Your task to perform on an android device: choose inbox layout in the gmail app Image 0: 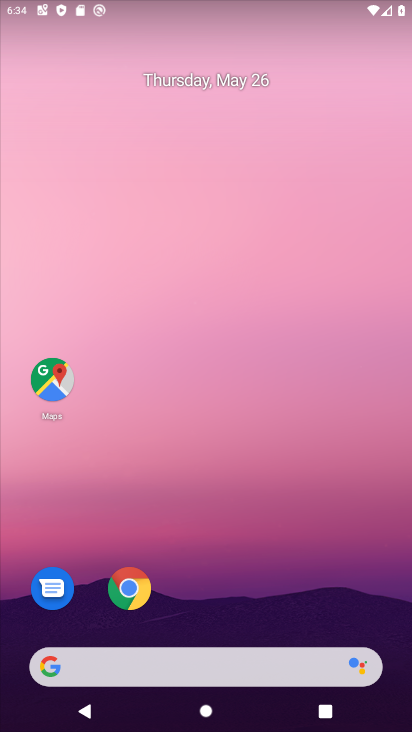
Step 0: drag from (365, 632) to (268, 12)
Your task to perform on an android device: choose inbox layout in the gmail app Image 1: 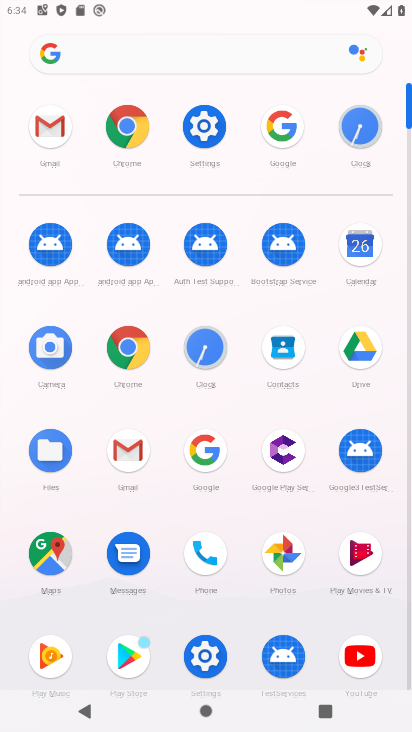
Step 1: click (138, 453)
Your task to perform on an android device: choose inbox layout in the gmail app Image 2: 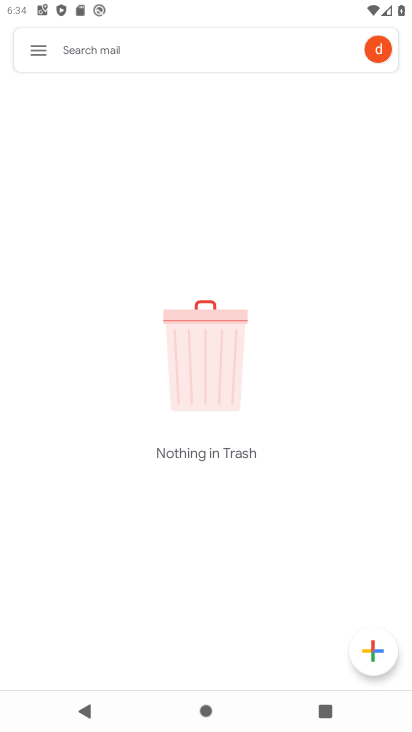
Step 2: click (24, 72)
Your task to perform on an android device: choose inbox layout in the gmail app Image 3: 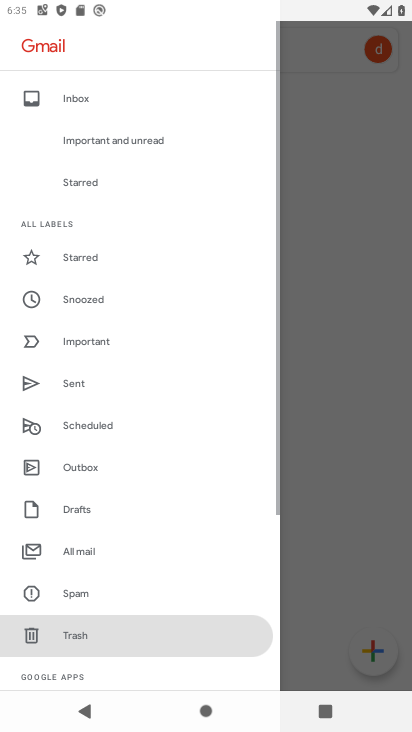
Step 3: drag from (75, 113) to (172, 639)
Your task to perform on an android device: choose inbox layout in the gmail app Image 4: 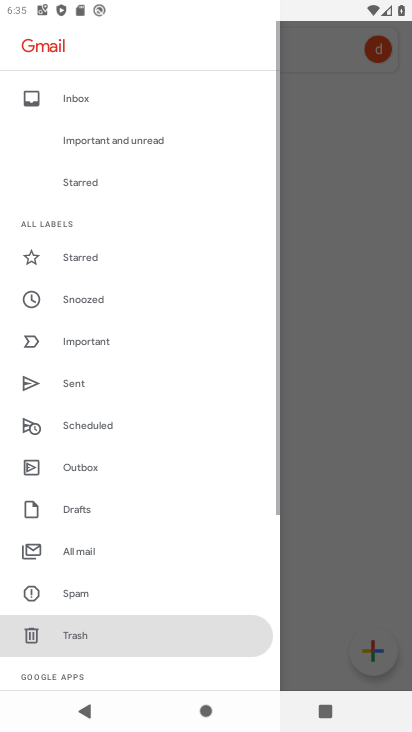
Step 4: click (99, 115)
Your task to perform on an android device: choose inbox layout in the gmail app Image 5: 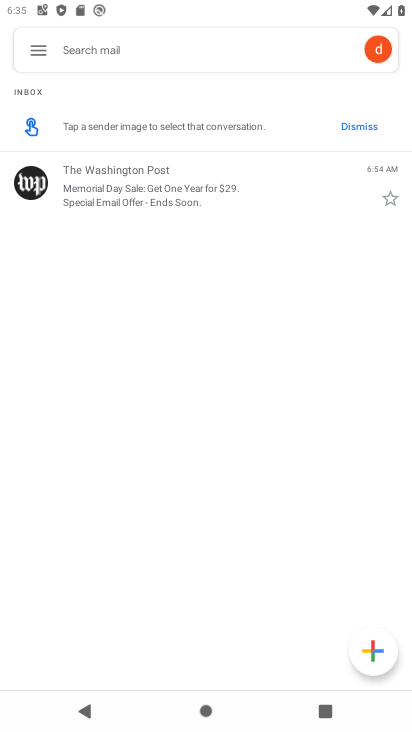
Step 5: task complete